Your task to perform on an android device: Turn off the flashlight Image 0: 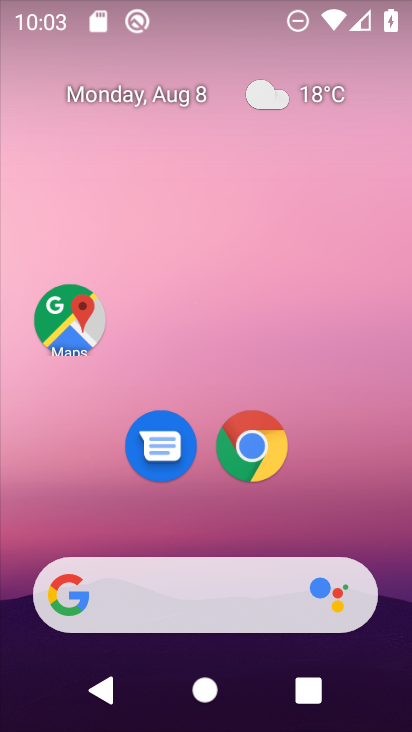
Step 0: drag from (225, 14) to (200, 590)
Your task to perform on an android device: Turn off the flashlight Image 1: 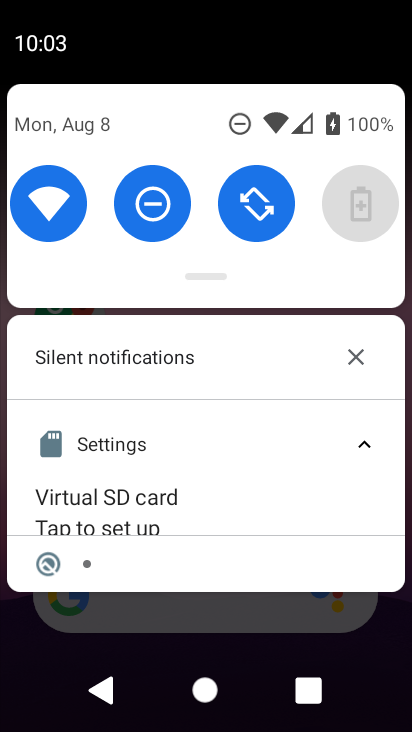
Step 1: drag from (208, 273) to (211, 534)
Your task to perform on an android device: Turn off the flashlight Image 2: 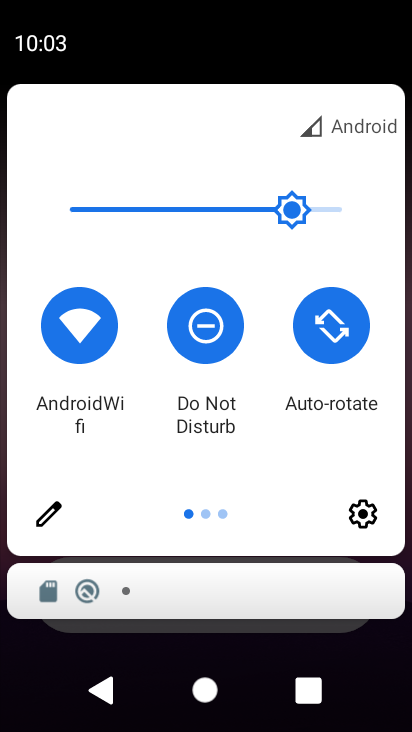
Step 2: click (46, 516)
Your task to perform on an android device: Turn off the flashlight Image 3: 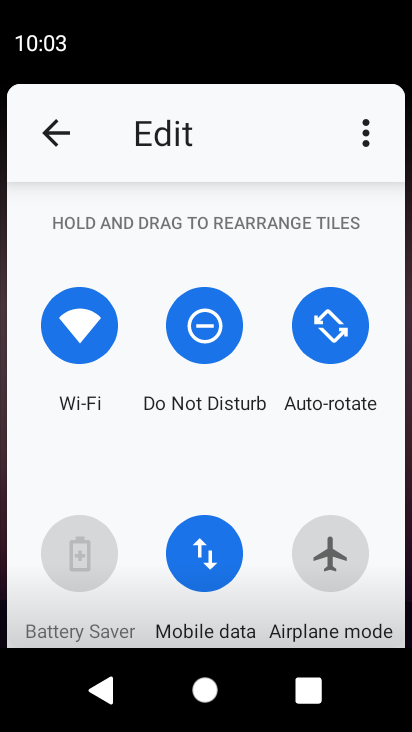
Step 3: task complete